Your task to perform on an android device: uninstall "Gboard" Image 0: 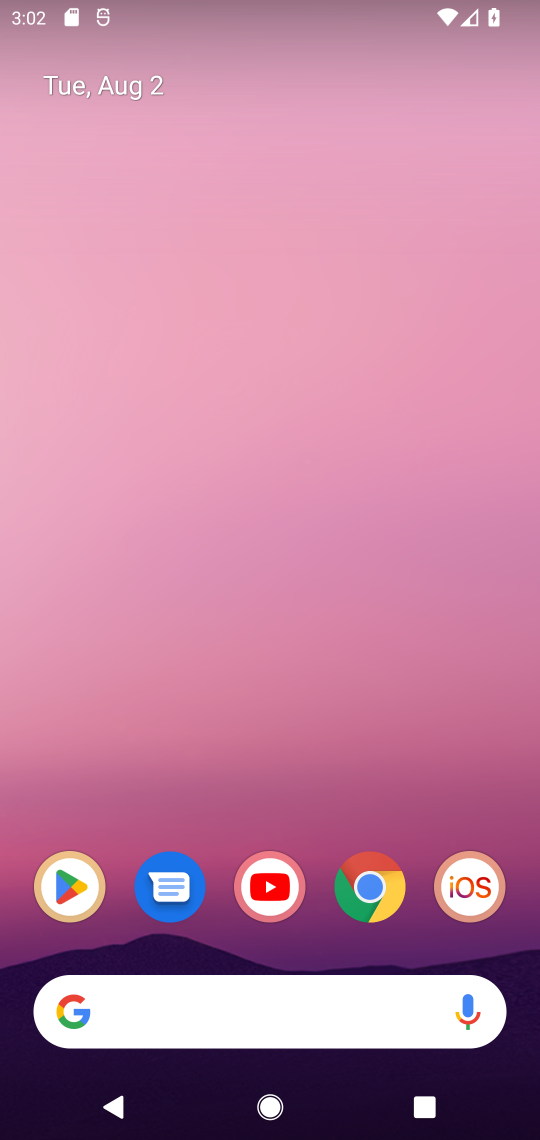
Step 0: drag from (323, 804) to (475, 481)
Your task to perform on an android device: uninstall "Gboard" Image 1: 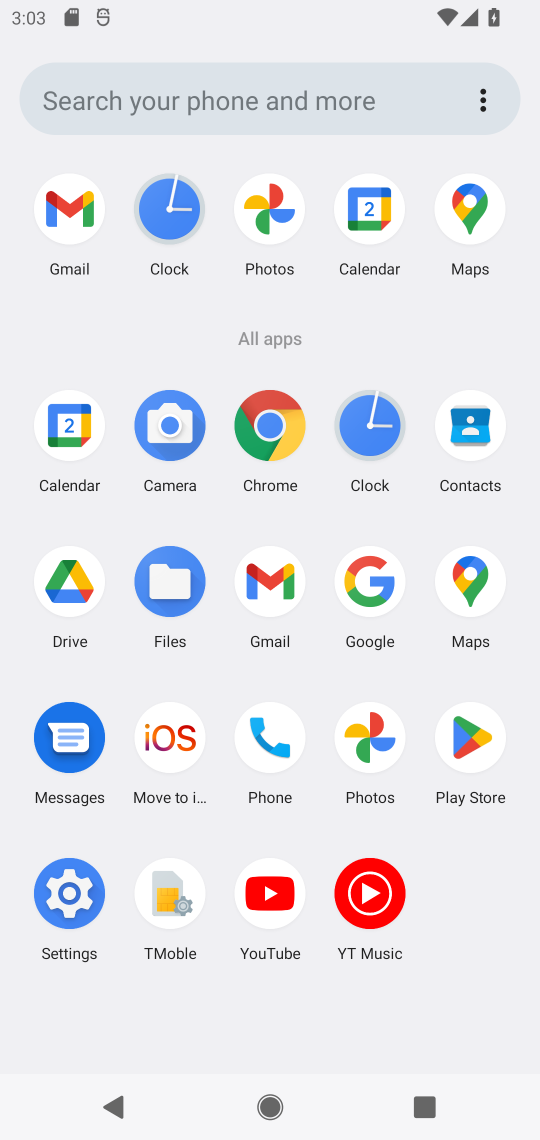
Step 1: task complete